Your task to perform on an android device: Open internet settings Image 0: 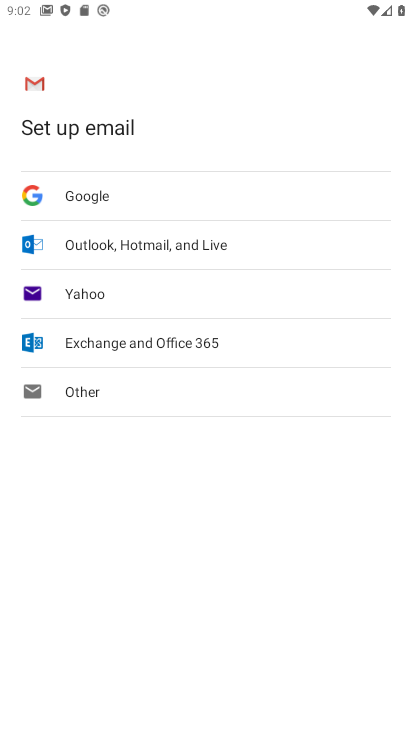
Step 0: press home button
Your task to perform on an android device: Open internet settings Image 1: 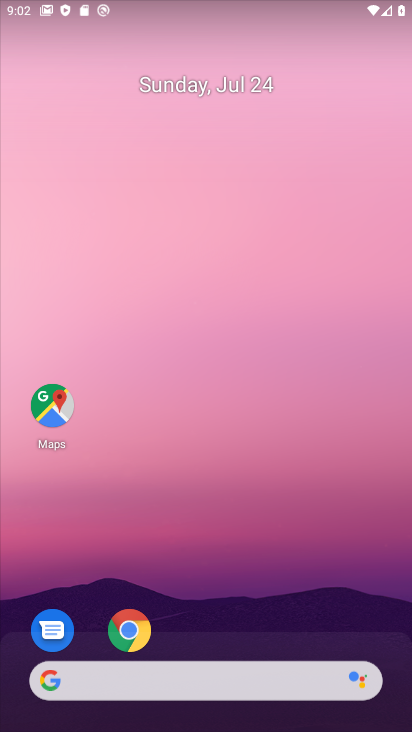
Step 1: click (196, 337)
Your task to perform on an android device: Open internet settings Image 2: 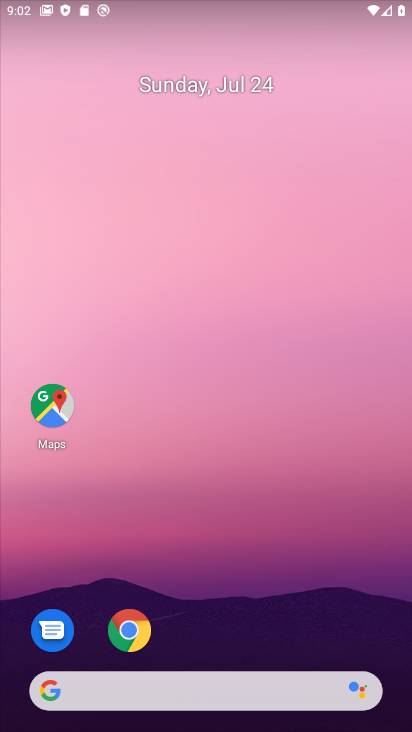
Step 2: drag from (231, 688) to (234, 291)
Your task to perform on an android device: Open internet settings Image 3: 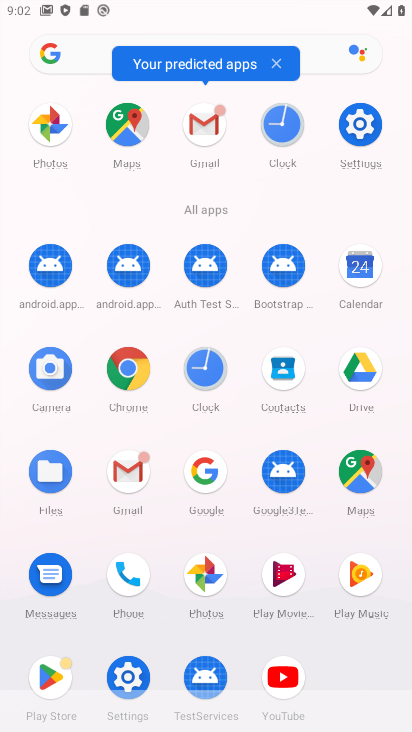
Step 3: click (359, 123)
Your task to perform on an android device: Open internet settings Image 4: 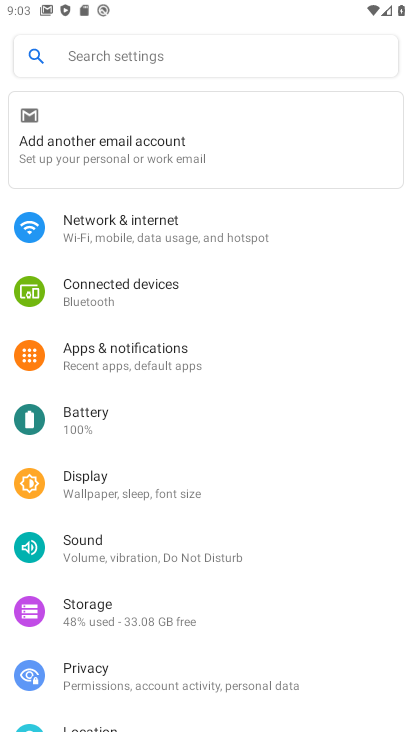
Step 4: click (148, 222)
Your task to perform on an android device: Open internet settings Image 5: 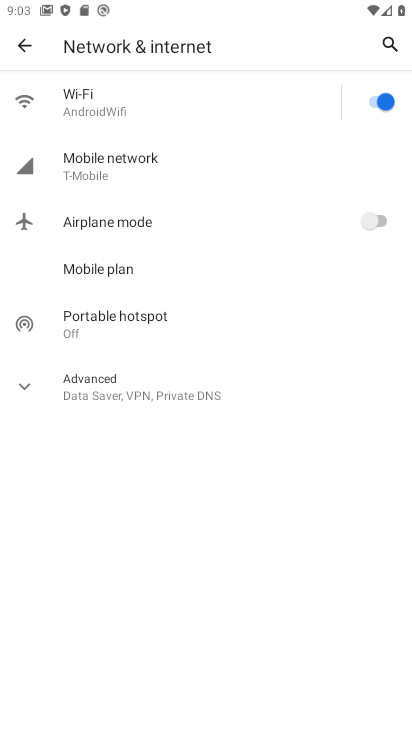
Step 5: task complete